Your task to perform on an android device: toggle wifi Image 0: 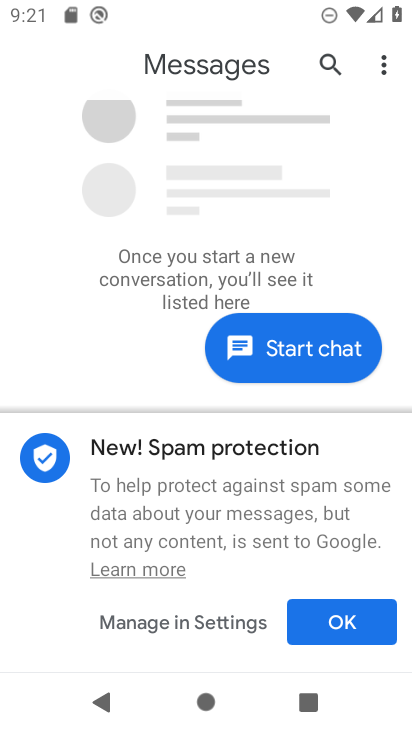
Step 0: press home button
Your task to perform on an android device: toggle wifi Image 1: 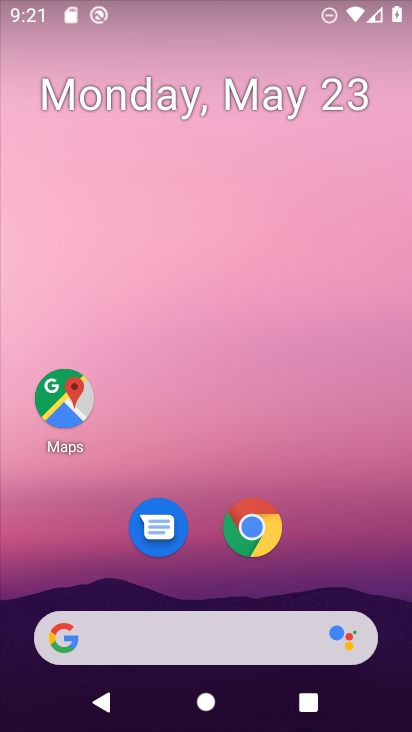
Step 1: drag from (283, 469) to (281, 34)
Your task to perform on an android device: toggle wifi Image 2: 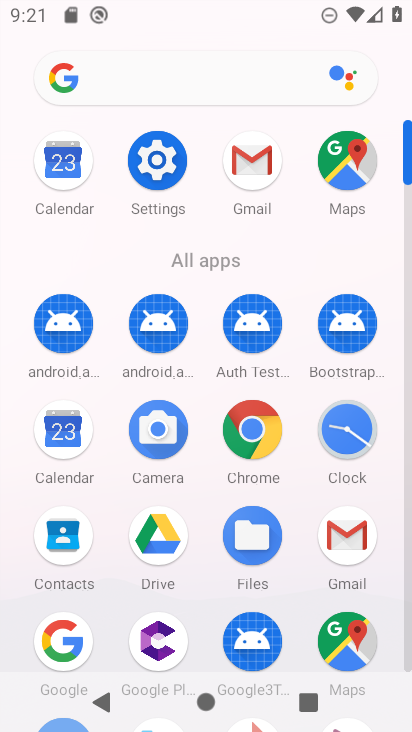
Step 2: click (156, 145)
Your task to perform on an android device: toggle wifi Image 3: 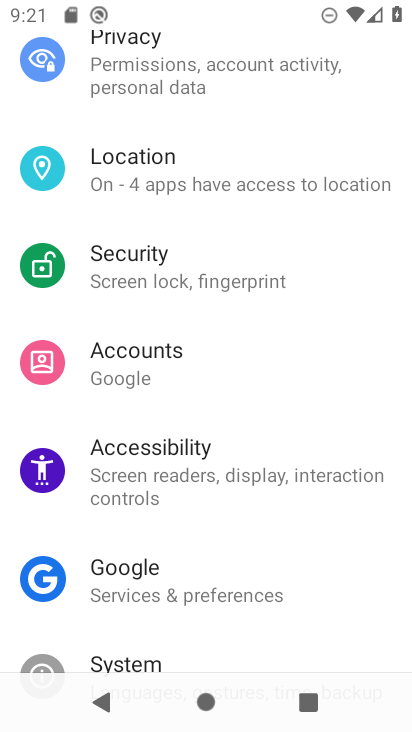
Step 3: drag from (200, 117) to (233, 661)
Your task to perform on an android device: toggle wifi Image 4: 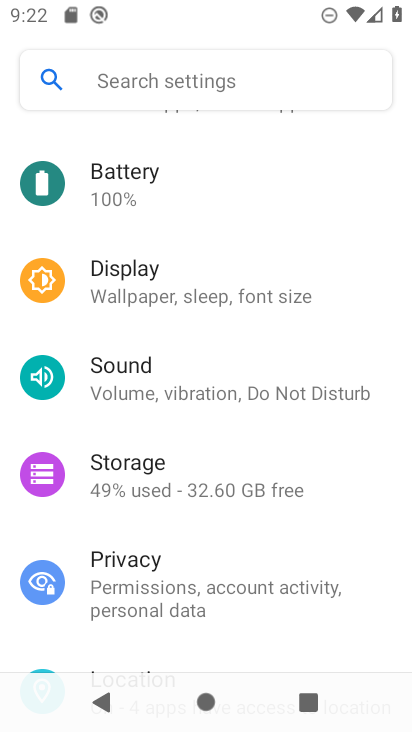
Step 4: drag from (271, 222) to (257, 598)
Your task to perform on an android device: toggle wifi Image 5: 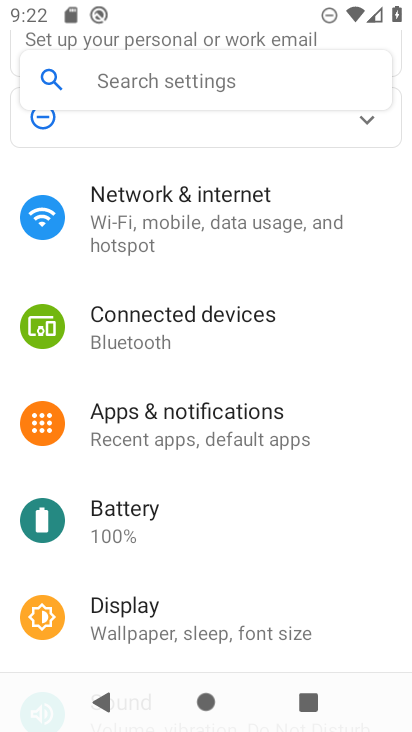
Step 5: click (206, 211)
Your task to perform on an android device: toggle wifi Image 6: 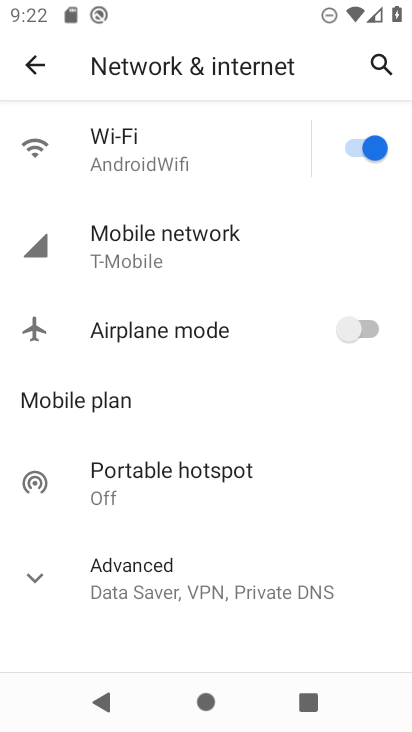
Step 6: click (355, 140)
Your task to perform on an android device: toggle wifi Image 7: 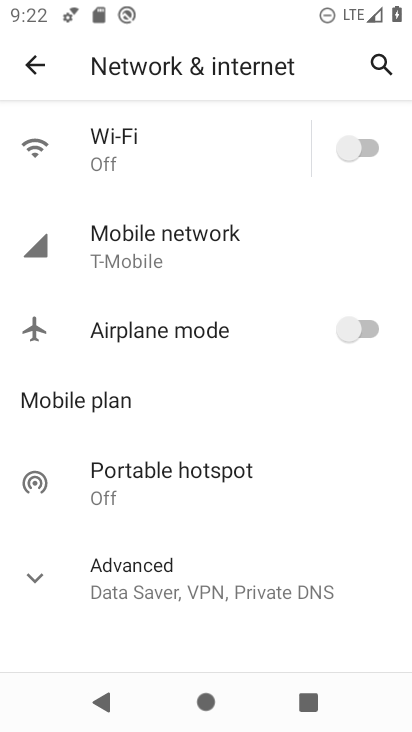
Step 7: task complete